Your task to perform on an android device: What is the recent news? Image 0: 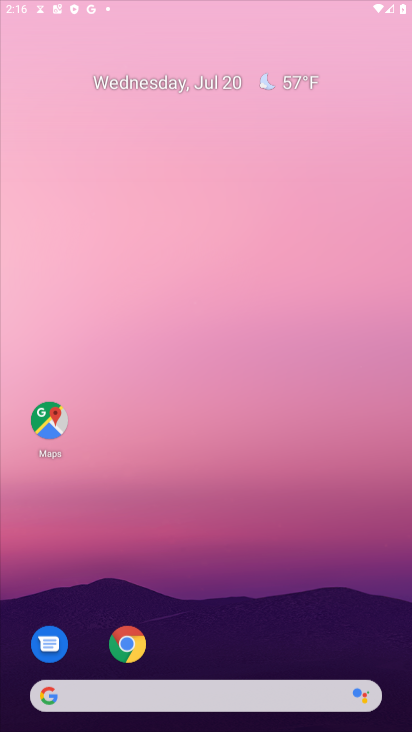
Step 0: press home button
Your task to perform on an android device: What is the recent news? Image 1: 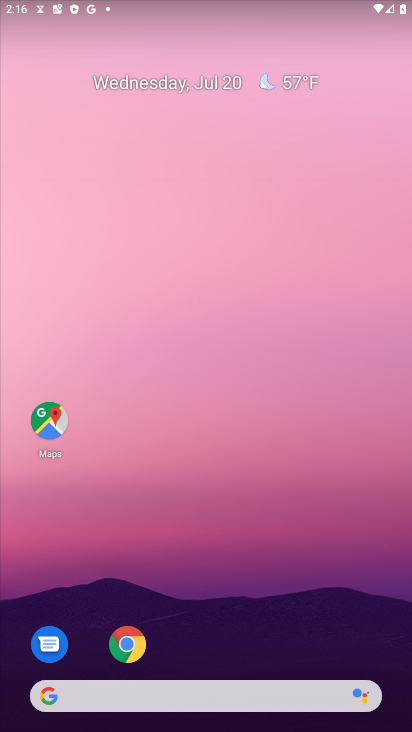
Step 1: click (51, 699)
Your task to perform on an android device: What is the recent news? Image 2: 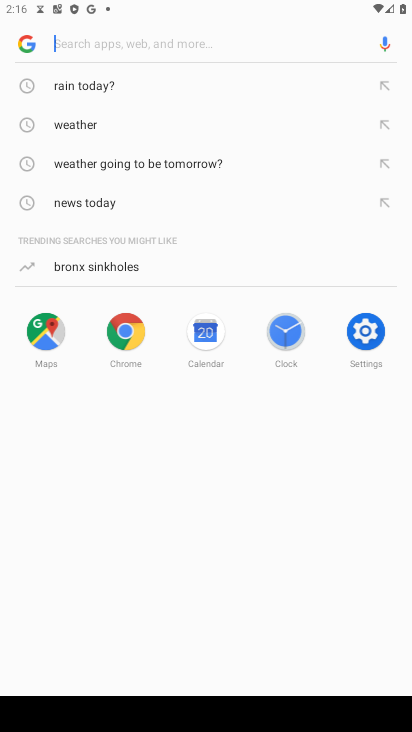
Step 2: type " recent news?"
Your task to perform on an android device: What is the recent news? Image 3: 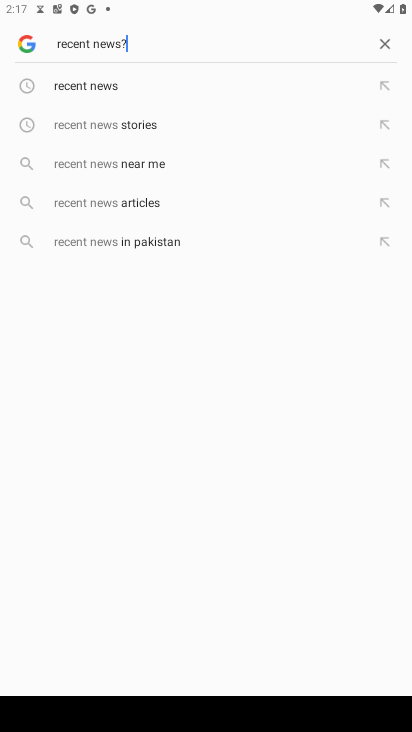
Step 3: press enter
Your task to perform on an android device: What is the recent news? Image 4: 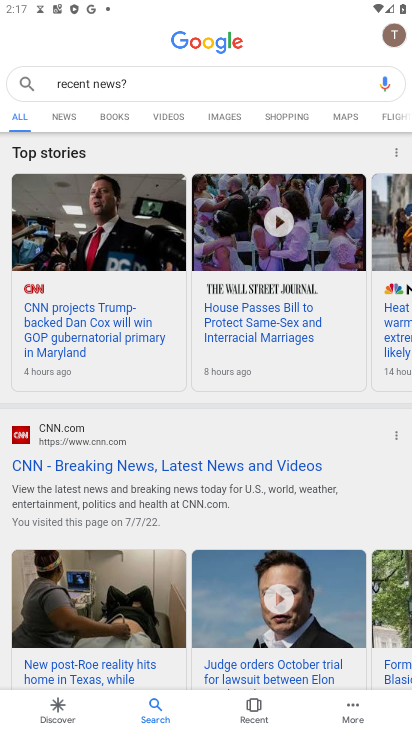
Step 4: task complete